Your task to perform on an android device: Go to accessibility settings Image 0: 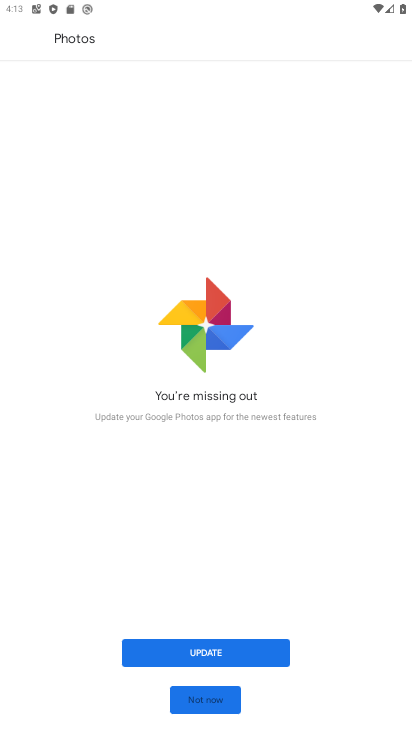
Step 0: press home button
Your task to perform on an android device: Go to accessibility settings Image 1: 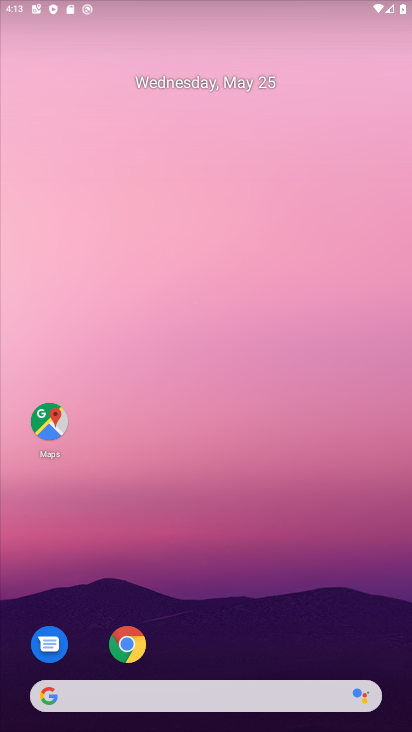
Step 1: drag from (311, 684) to (284, 0)
Your task to perform on an android device: Go to accessibility settings Image 2: 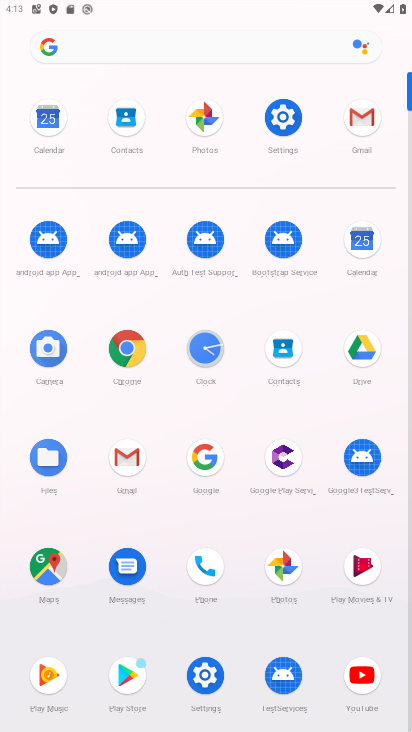
Step 2: click (282, 121)
Your task to perform on an android device: Go to accessibility settings Image 3: 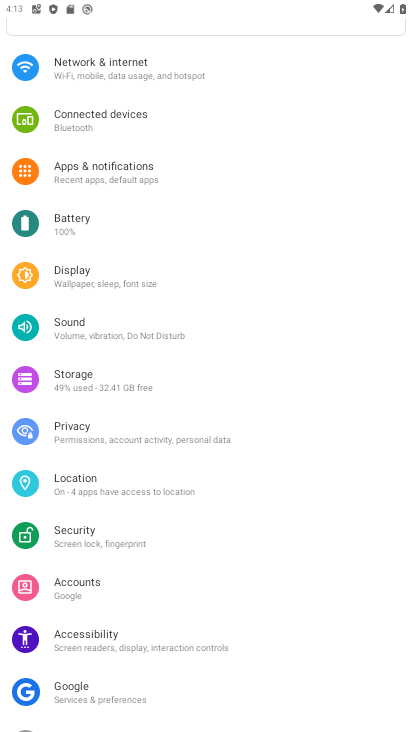
Step 3: click (92, 643)
Your task to perform on an android device: Go to accessibility settings Image 4: 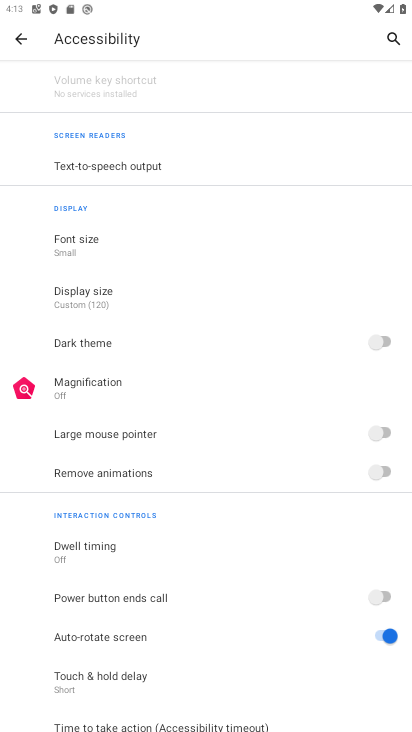
Step 4: task complete